Your task to perform on an android device: Open Google Maps and go to "Timeline" Image 0: 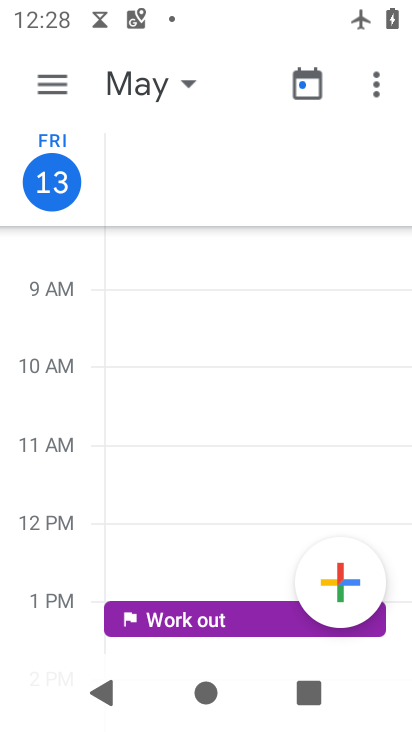
Step 0: press home button
Your task to perform on an android device: Open Google Maps and go to "Timeline" Image 1: 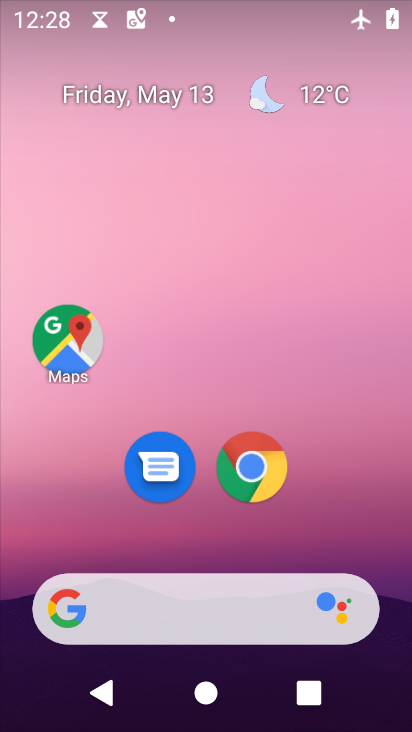
Step 1: click (57, 327)
Your task to perform on an android device: Open Google Maps and go to "Timeline" Image 2: 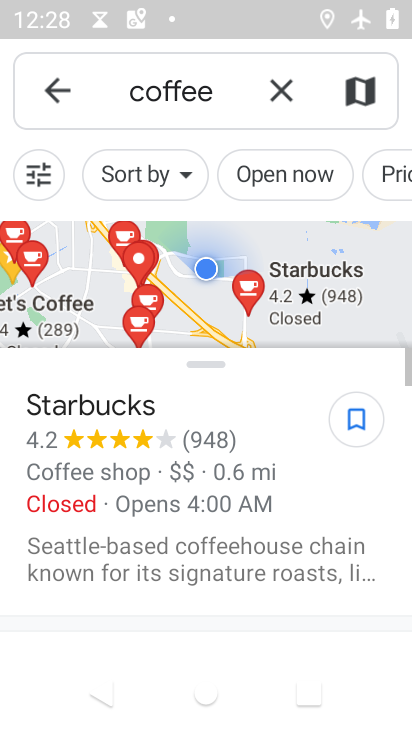
Step 2: click (274, 93)
Your task to perform on an android device: Open Google Maps and go to "Timeline" Image 3: 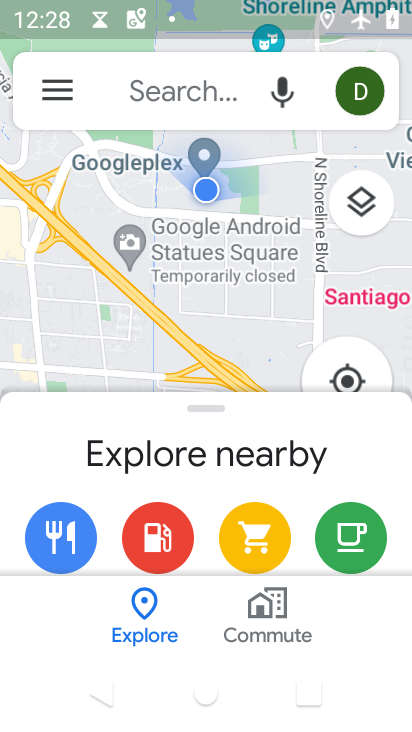
Step 3: task complete